Your task to perform on an android device: Go to Yahoo.com Image 0: 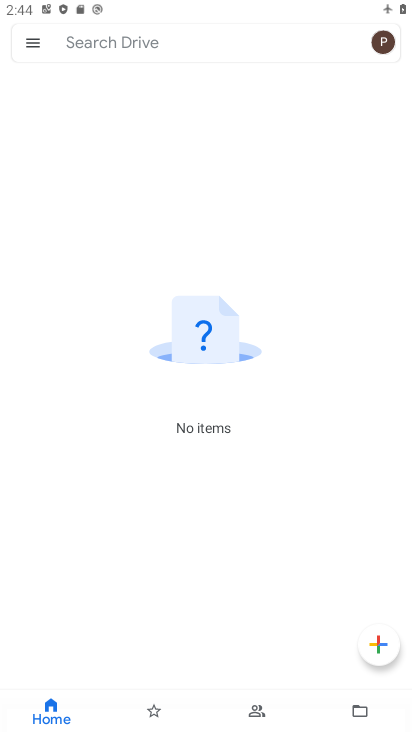
Step 0: press back button
Your task to perform on an android device: Go to Yahoo.com Image 1: 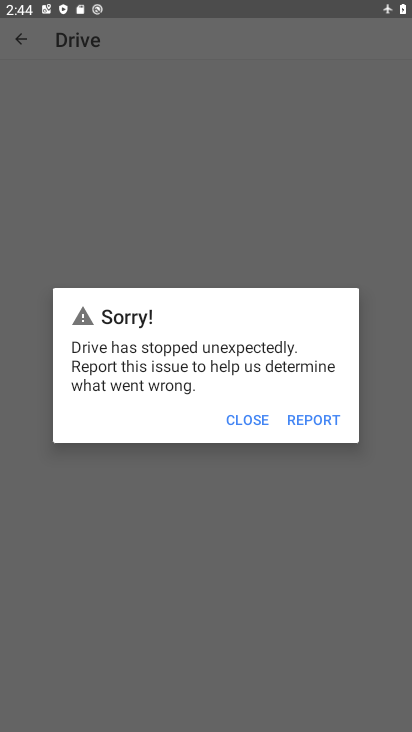
Step 1: press back button
Your task to perform on an android device: Go to Yahoo.com Image 2: 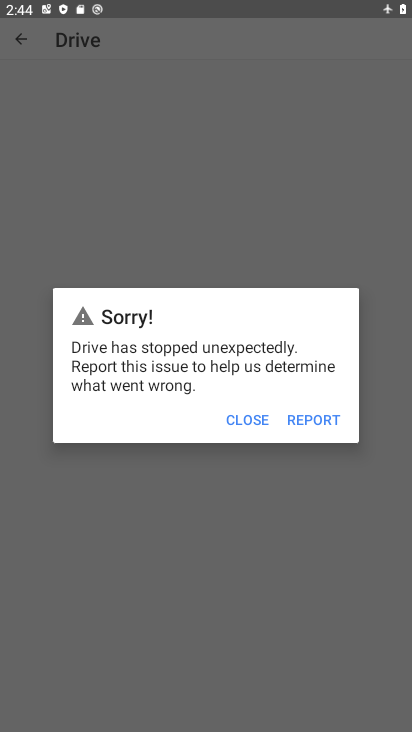
Step 2: press home button
Your task to perform on an android device: Go to Yahoo.com Image 3: 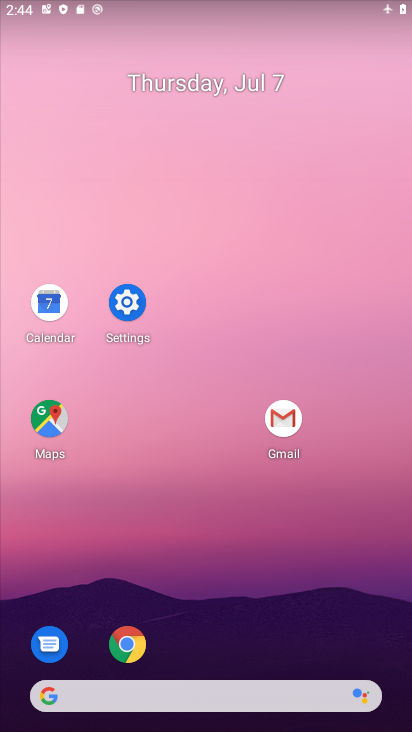
Step 3: click (129, 641)
Your task to perform on an android device: Go to Yahoo.com Image 4: 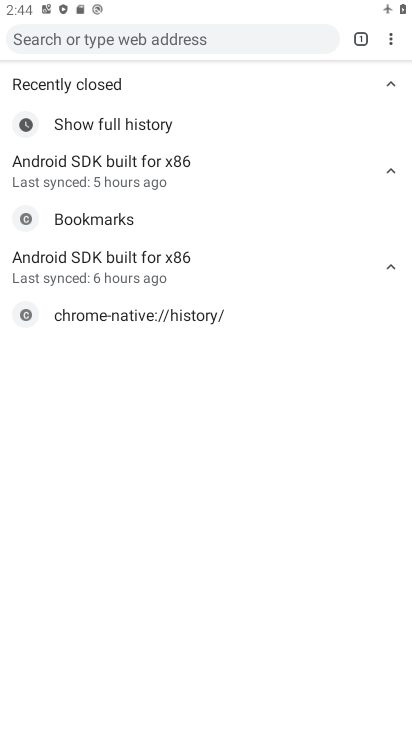
Step 4: click (207, 30)
Your task to perform on an android device: Go to Yahoo.com Image 5: 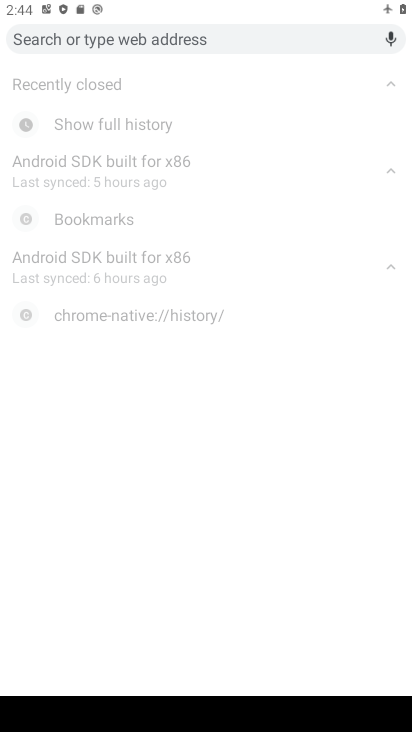
Step 5: type "Yahoo.com"
Your task to perform on an android device: Go to Yahoo.com Image 6: 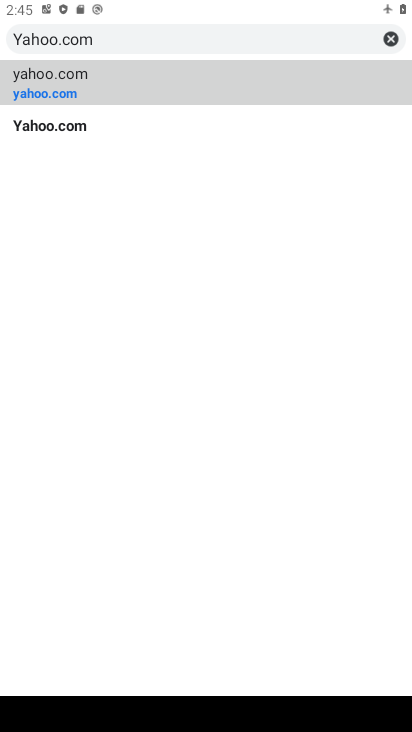
Step 6: click (68, 84)
Your task to perform on an android device: Go to Yahoo.com Image 7: 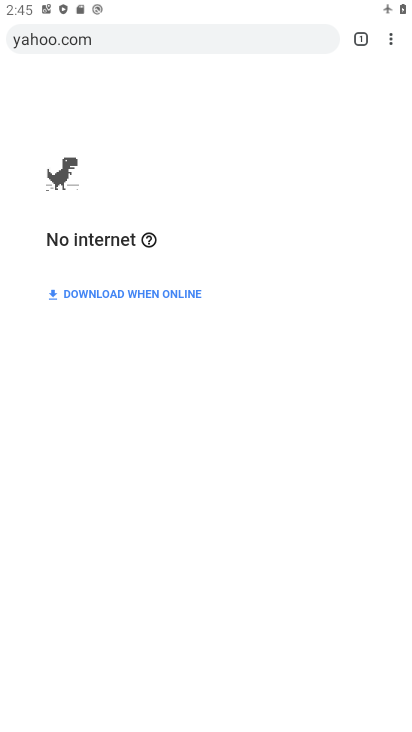
Step 7: task complete